Your task to perform on an android device: make emails show in primary in the gmail app Image 0: 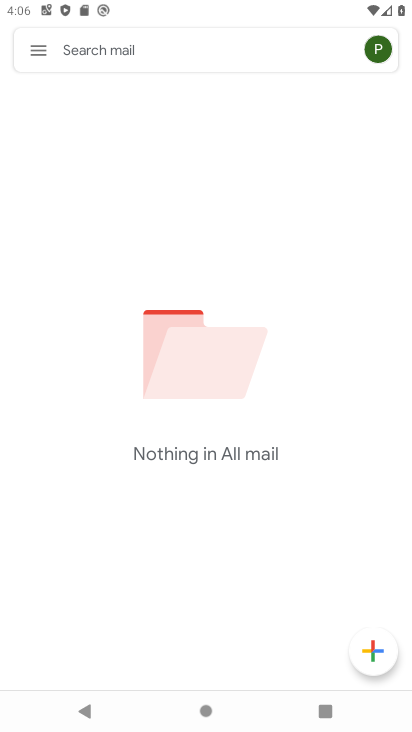
Step 0: press home button
Your task to perform on an android device: make emails show in primary in the gmail app Image 1: 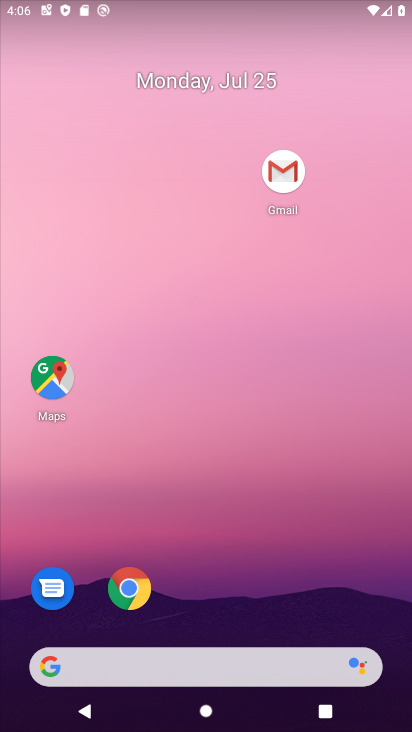
Step 1: drag from (338, 547) to (188, 7)
Your task to perform on an android device: make emails show in primary in the gmail app Image 2: 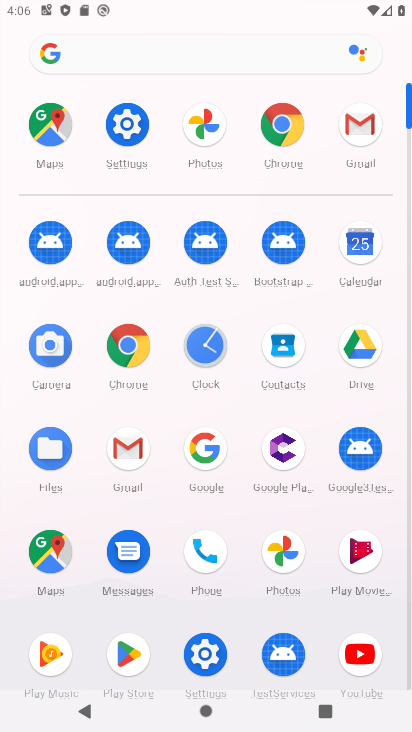
Step 2: click (360, 117)
Your task to perform on an android device: make emails show in primary in the gmail app Image 3: 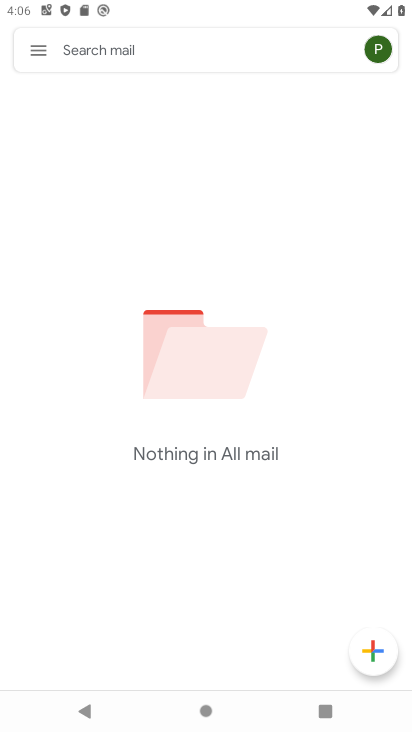
Step 3: click (39, 38)
Your task to perform on an android device: make emails show in primary in the gmail app Image 4: 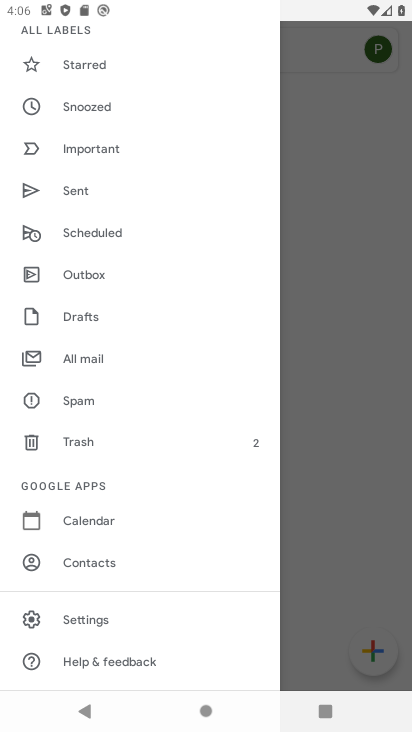
Step 4: click (105, 611)
Your task to perform on an android device: make emails show in primary in the gmail app Image 5: 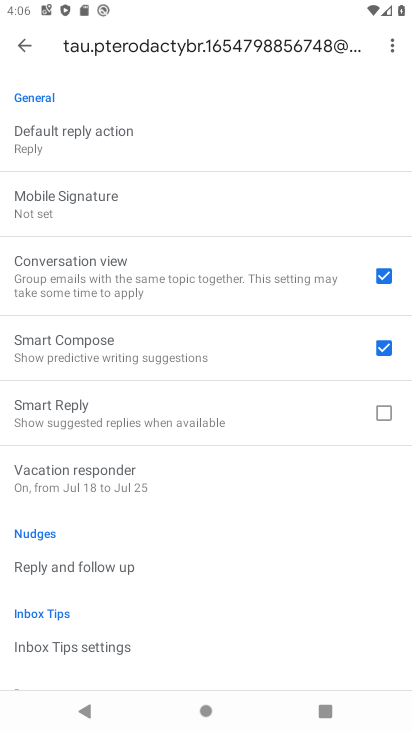
Step 5: drag from (152, 641) to (187, 175)
Your task to perform on an android device: make emails show in primary in the gmail app Image 6: 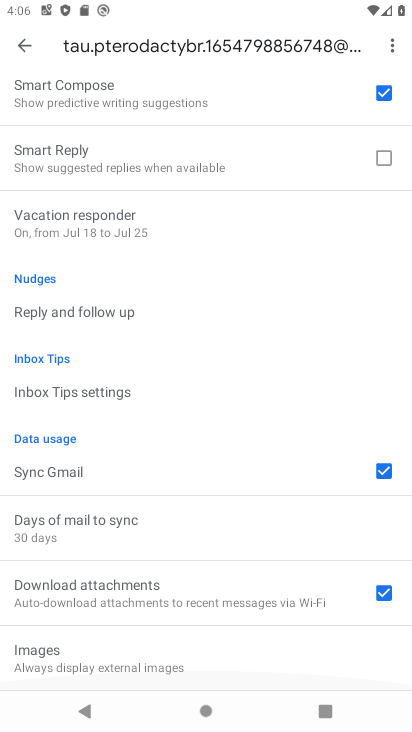
Step 6: drag from (187, 175) to (145, 671)
Your task to perform on an android device: make emails show in primary in the gmail app Image 7: 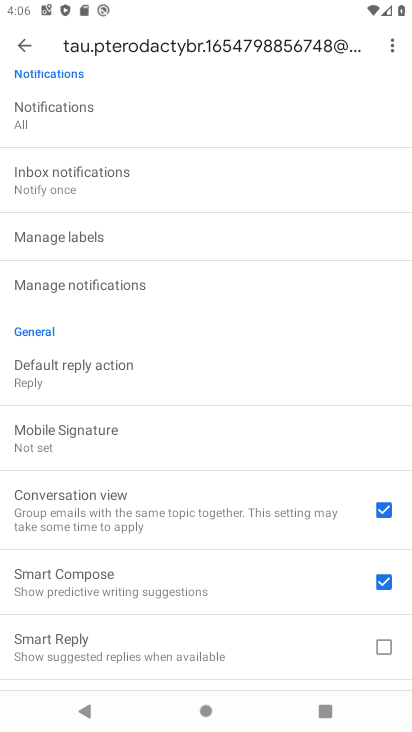
Step 7: drag from (149, 109) to (143, 504)
Your task to perform on an android device: make emails show in primary in the gmail app Image 8: 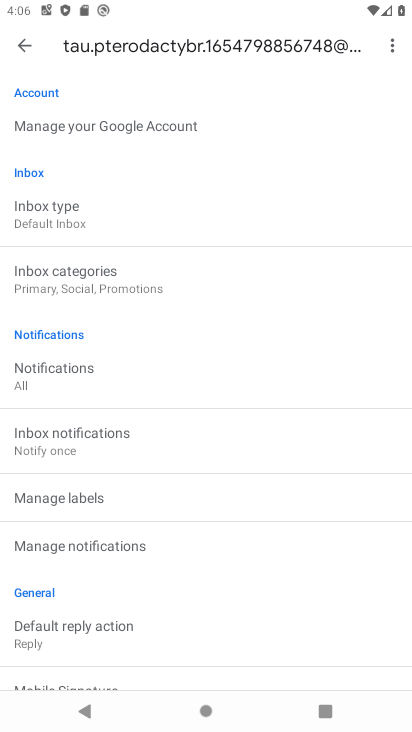
Step 8: click (94, 271)
Your task to perform on an android device: make emails show in primary in the gmail app Image 9: 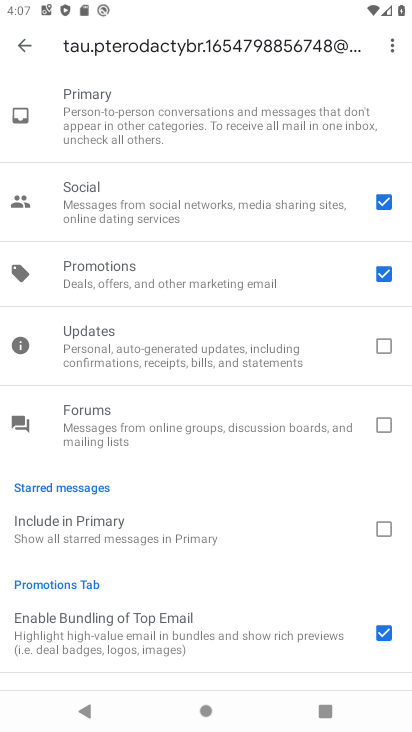
Step 9: task complete